Your task to perform on an android device: Search for dell xps on newegg.com, select the first entry, and add it to the cart. Image 0: 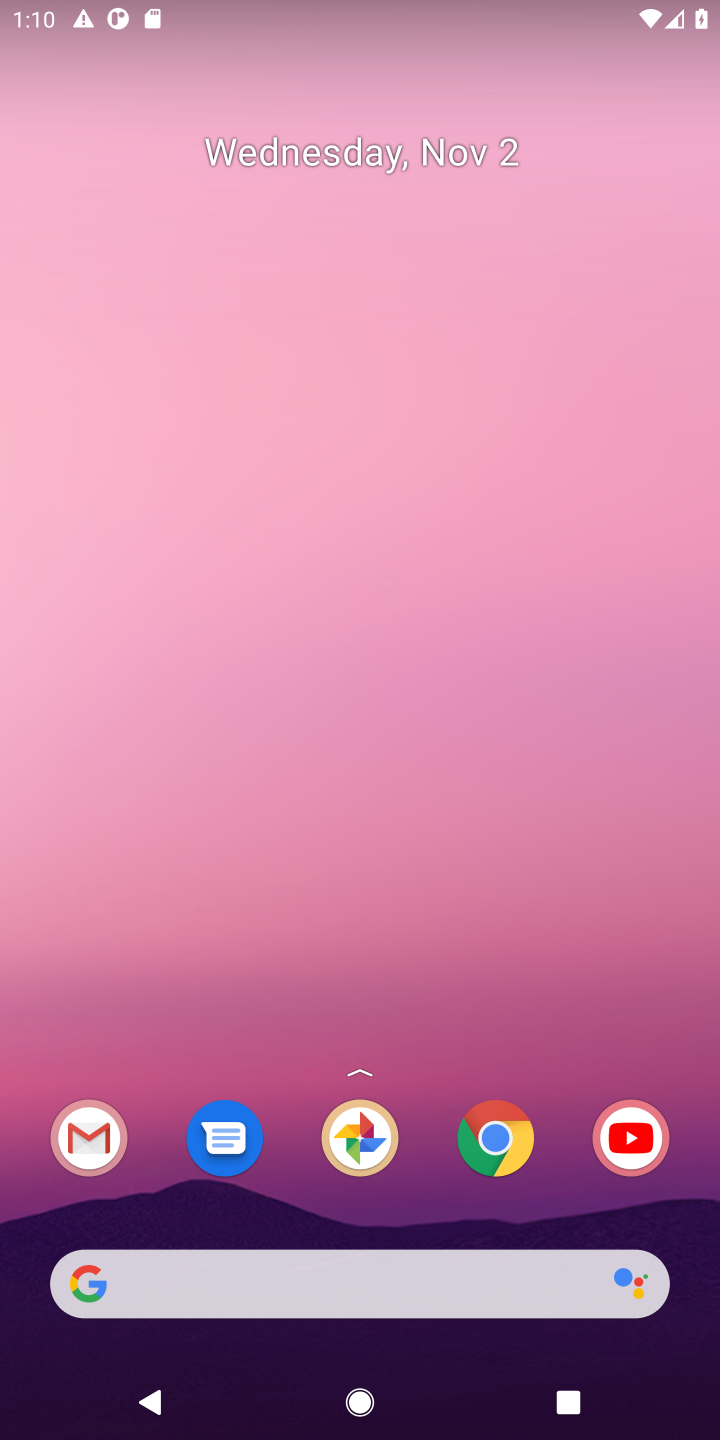
Step 0: click (495, 1107)
Your task to perform on an android device: Search for dell xps on newegg.com, select the first entry, and add it to the cart. Image 1: 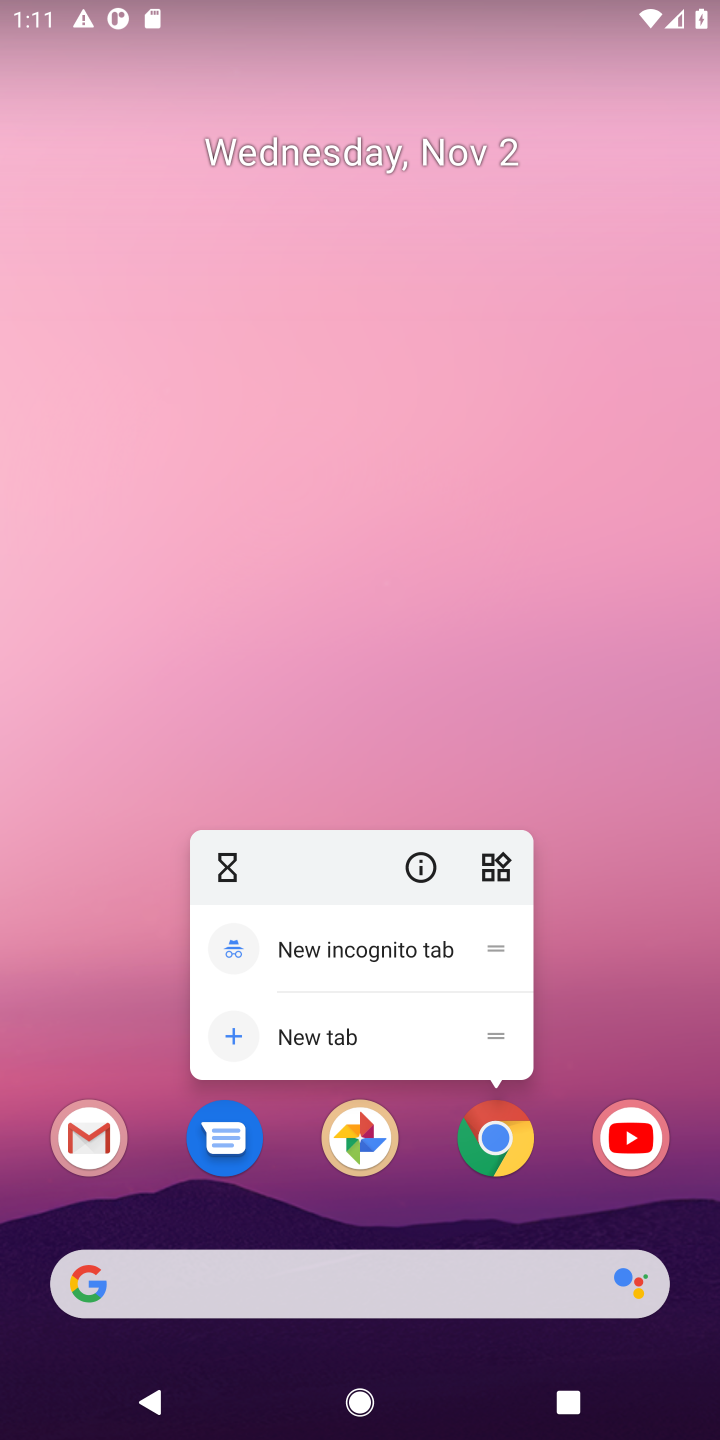
Step 1: click (485, 1136)
Your task to perform on an android device: Search for dell xps on newegg.com, select the first entry, and add it to the cart. Image 2: 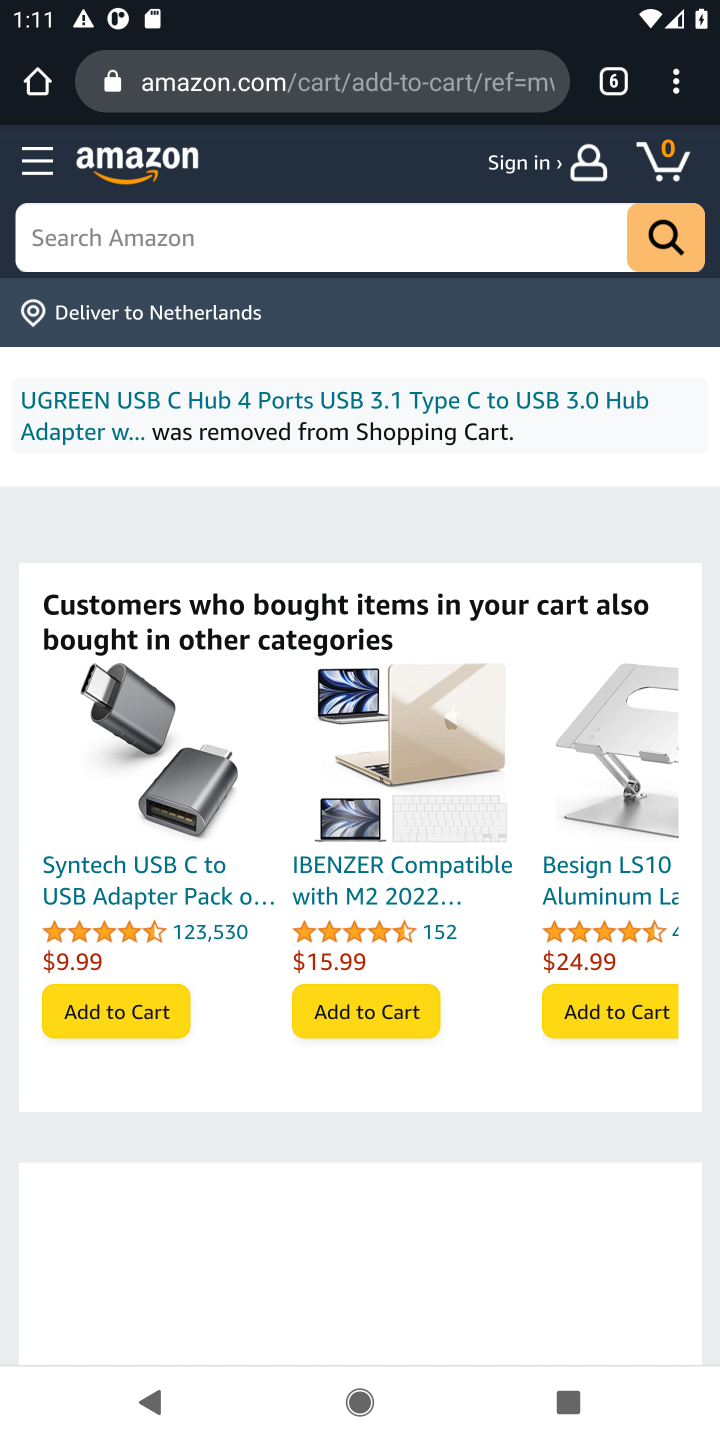
Step 2: click (611, 77)
Your task to perform on an android device: Search for dell xps on newegg.com, select the first entry, and add it to the cart. Image 3: 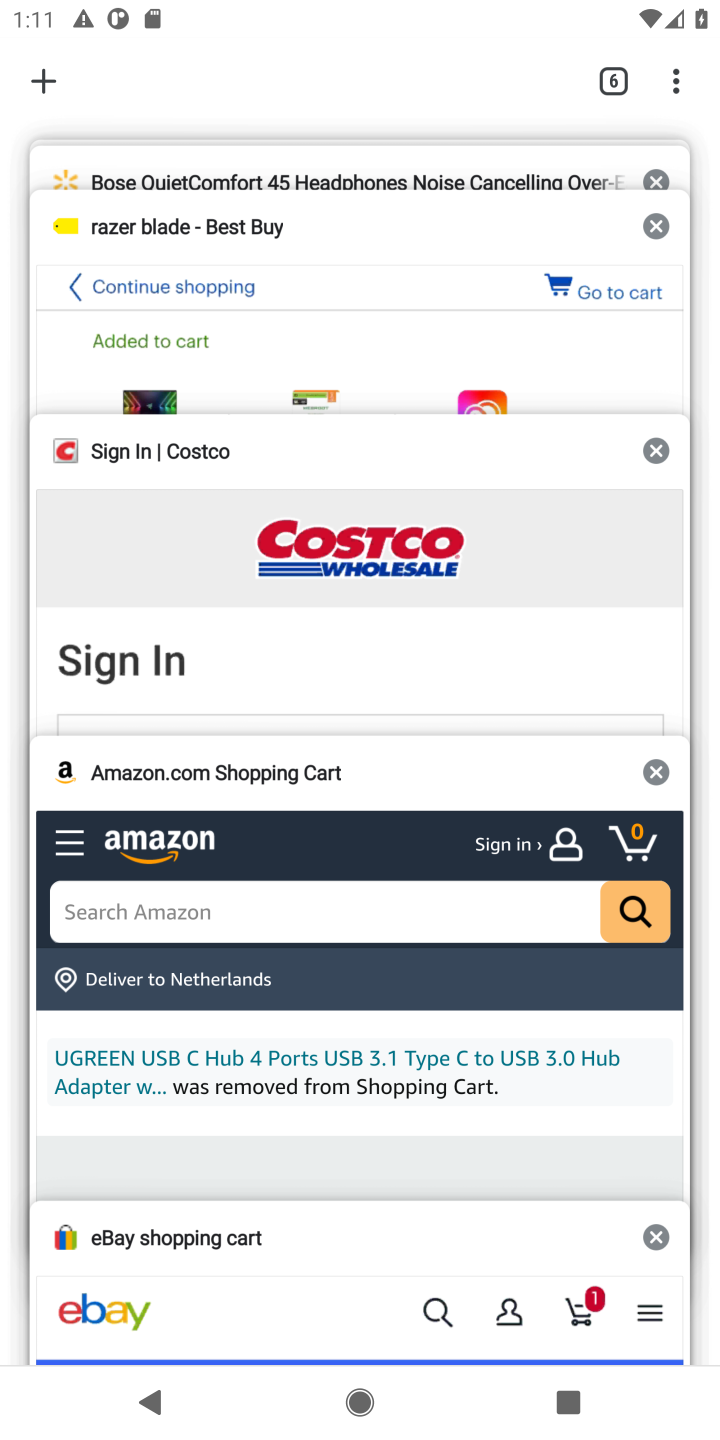
Step 3: click (41, 83)
Your task to perform on an android device: Search for dell xps on newegg.com, select the first entry, and add it to the cart. Image 4: 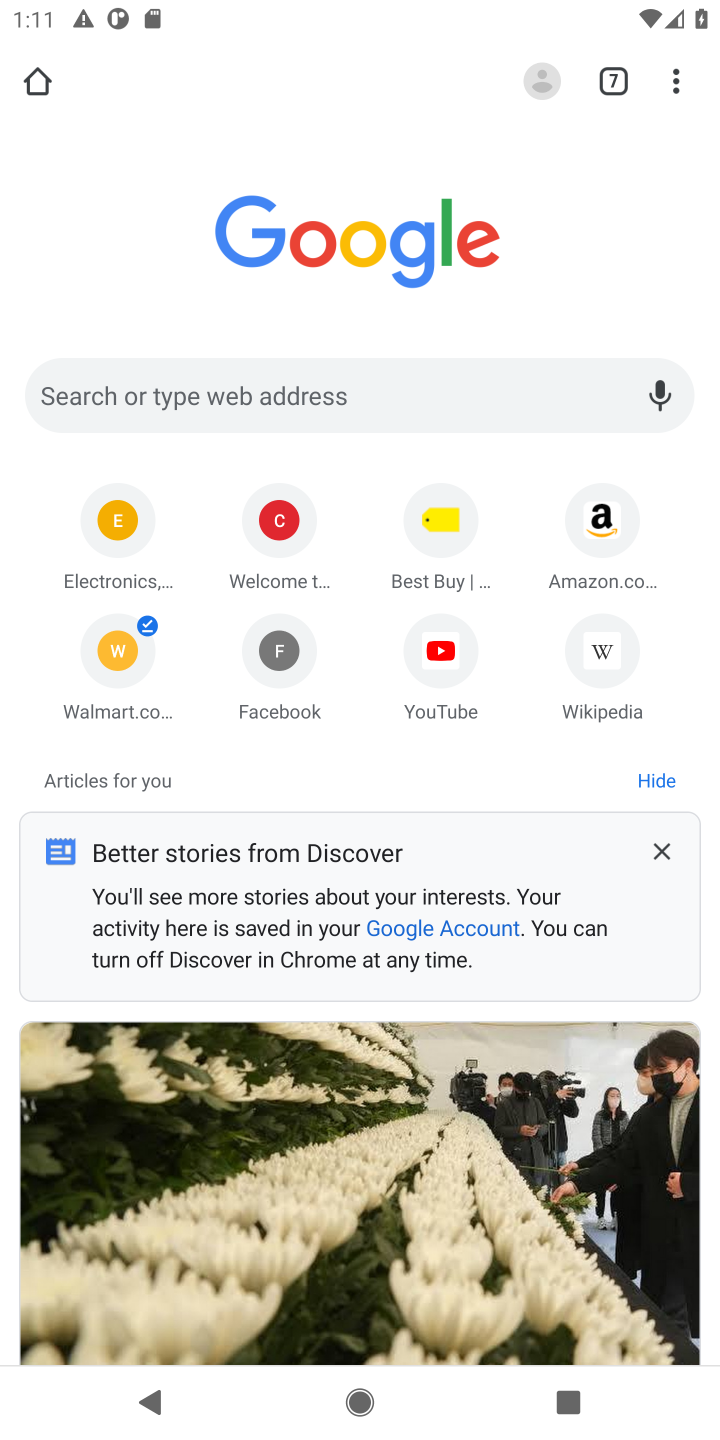
Step 4: click (362, 390)
Your task to perform on an android device: Search for dell xps on newegg.com, select the first entry, and add it to the cart. Image 5: 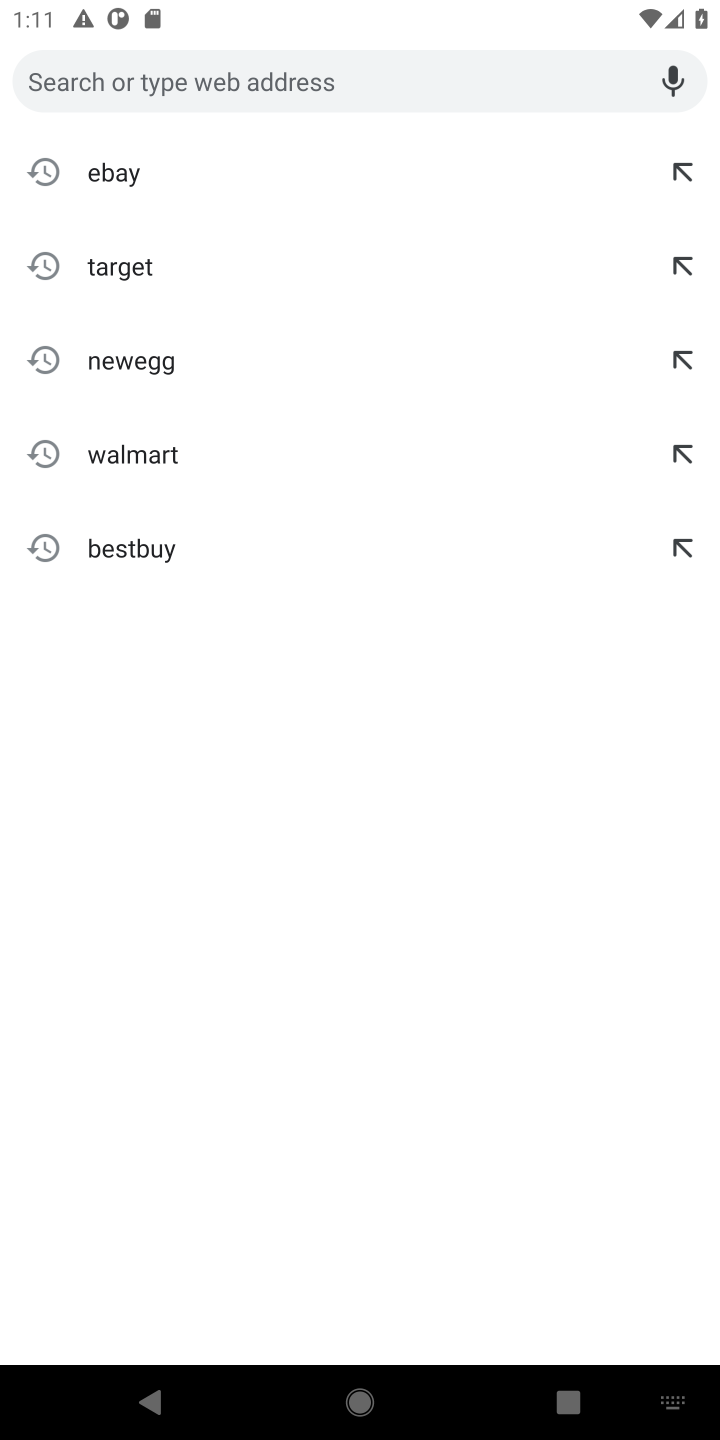
Step 5: click (127, 369)
Your task to perform on an android device: Search for dell xps on newegg.com, select the first entry, and add it to the cart. Image 6: 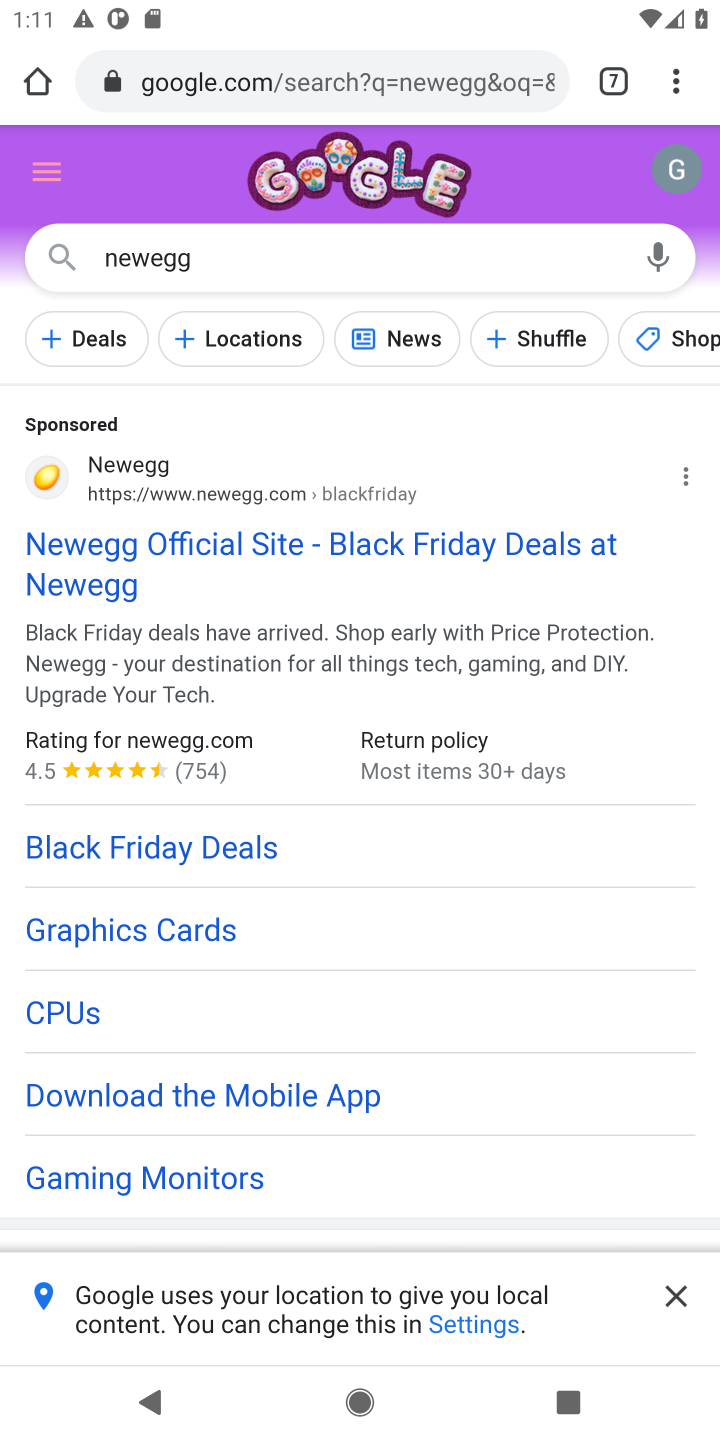
Step 6: drag from (348, 1135) to (388, 536)
Your task to perform on an android device: Search for dell xps on newegg.com, select the first entry, and add it to the cart. Image 7: 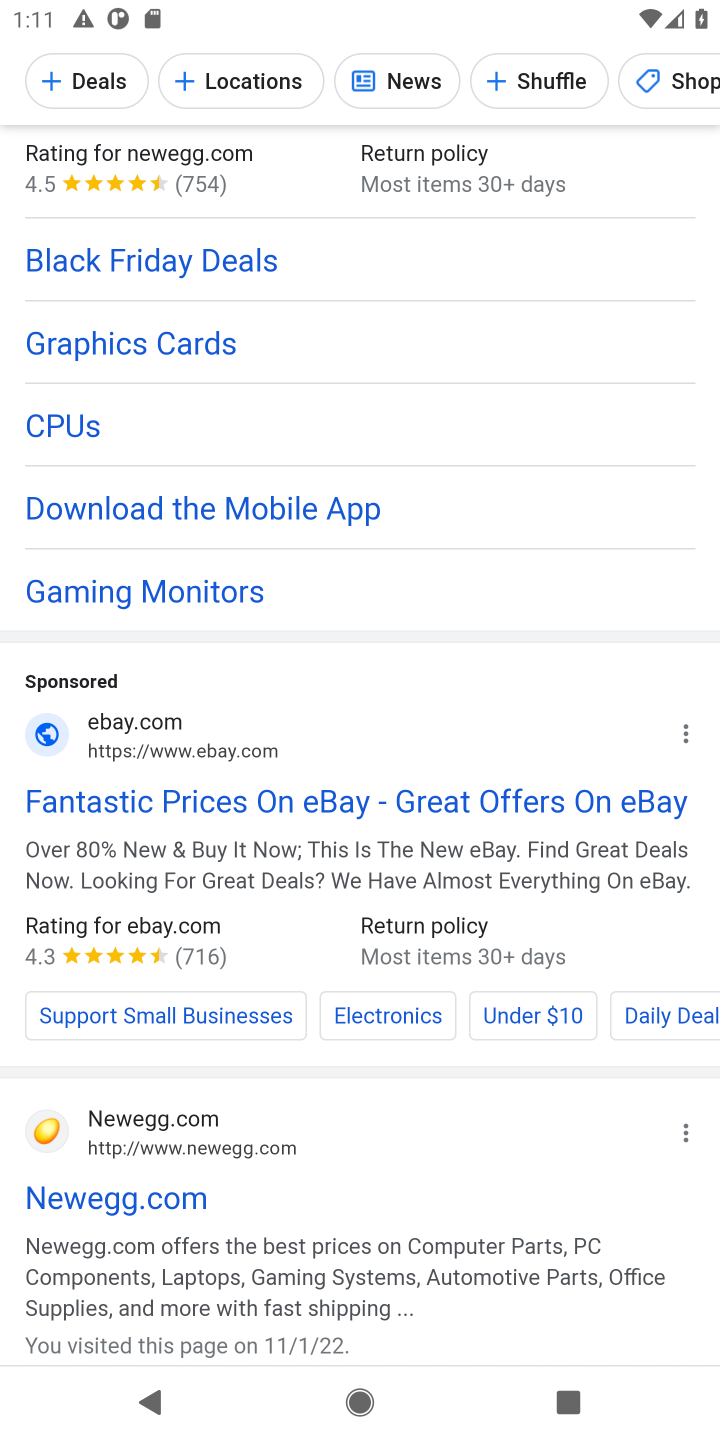
Step 7: drag from (247, 1154) to (367, 392)
Your task to perform on an android device: Search for dell xps on newegg.com, select the first entry, and add it to the cart. Image 8: 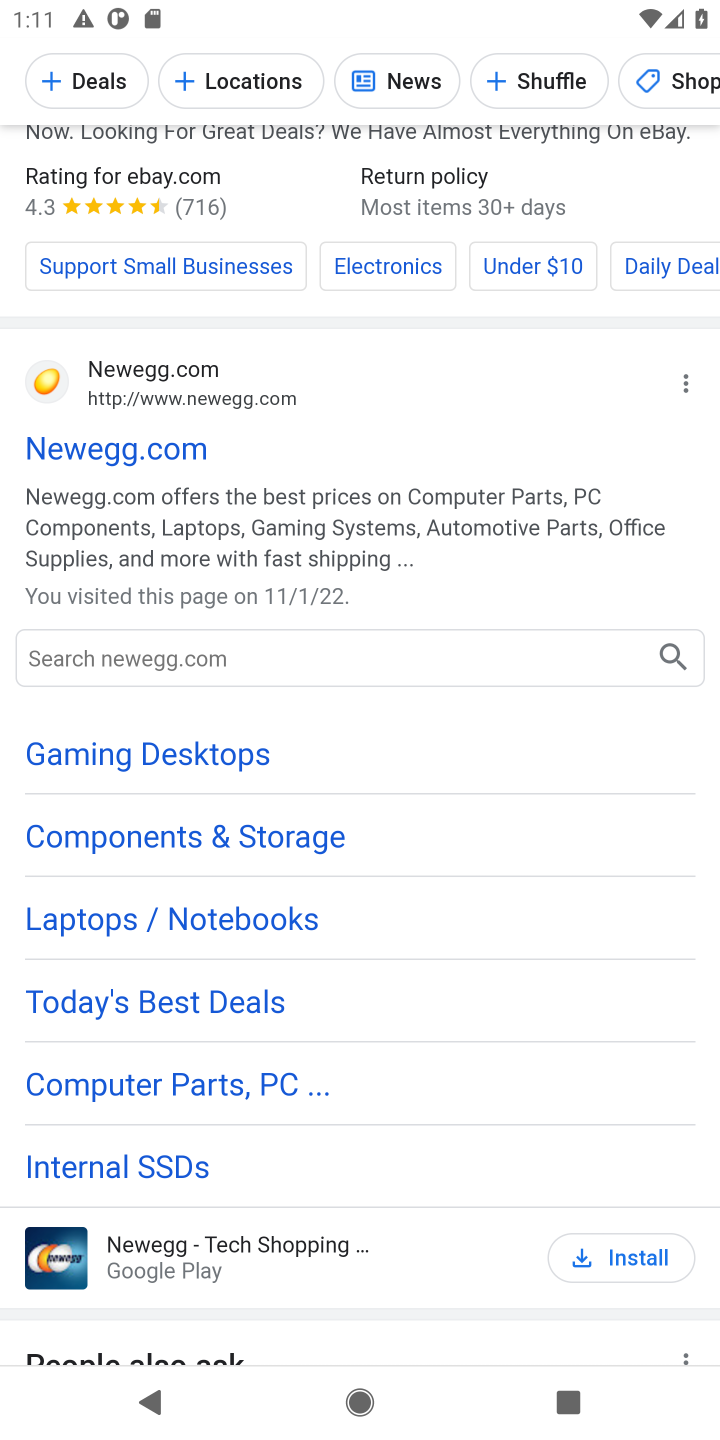
Step 8: click (199, 653)
Your task to perform on an android device: Search for dell xps on newegg.com, select the first entry, and add it to the cart. Image 9: 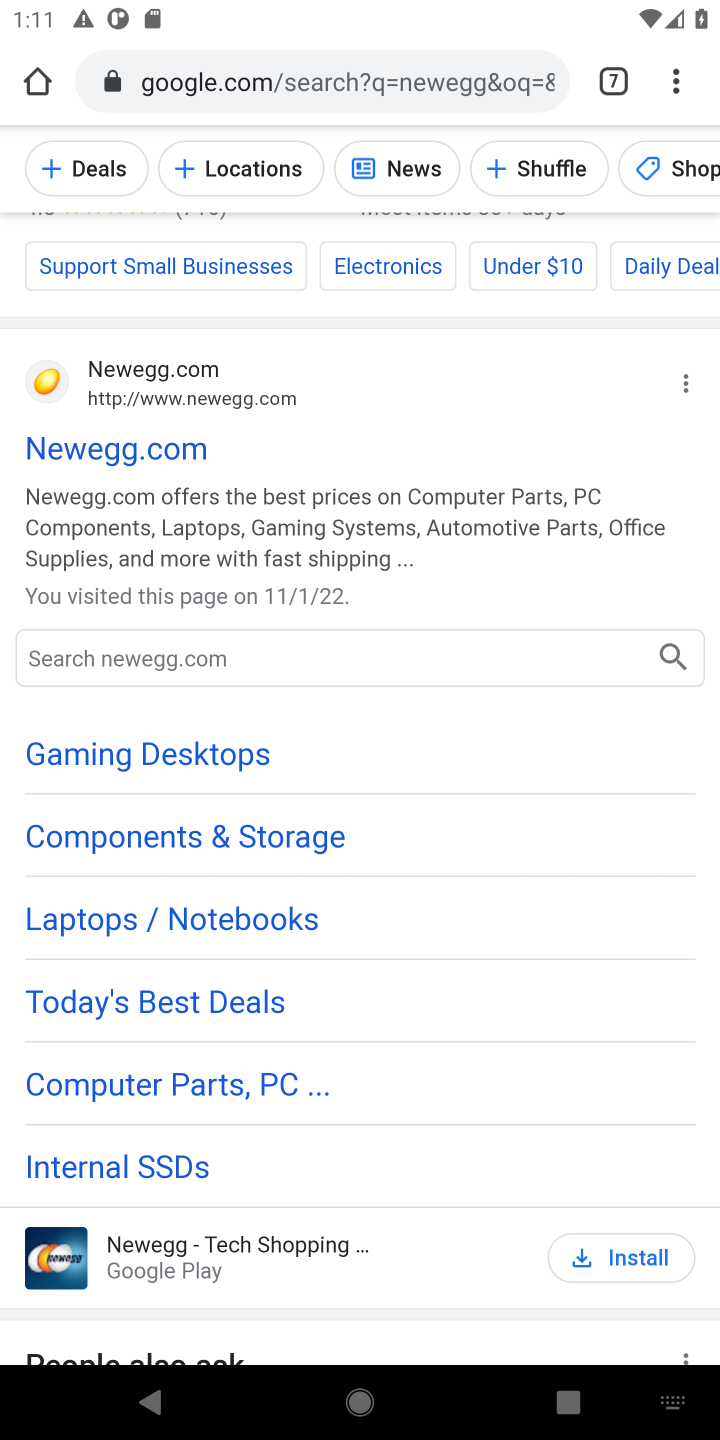
Step 9: type "dell xps"
Your task to perform on an android device: Search for dell xps on newegg.com, select the first entry, and add it to the cart. Image 10: 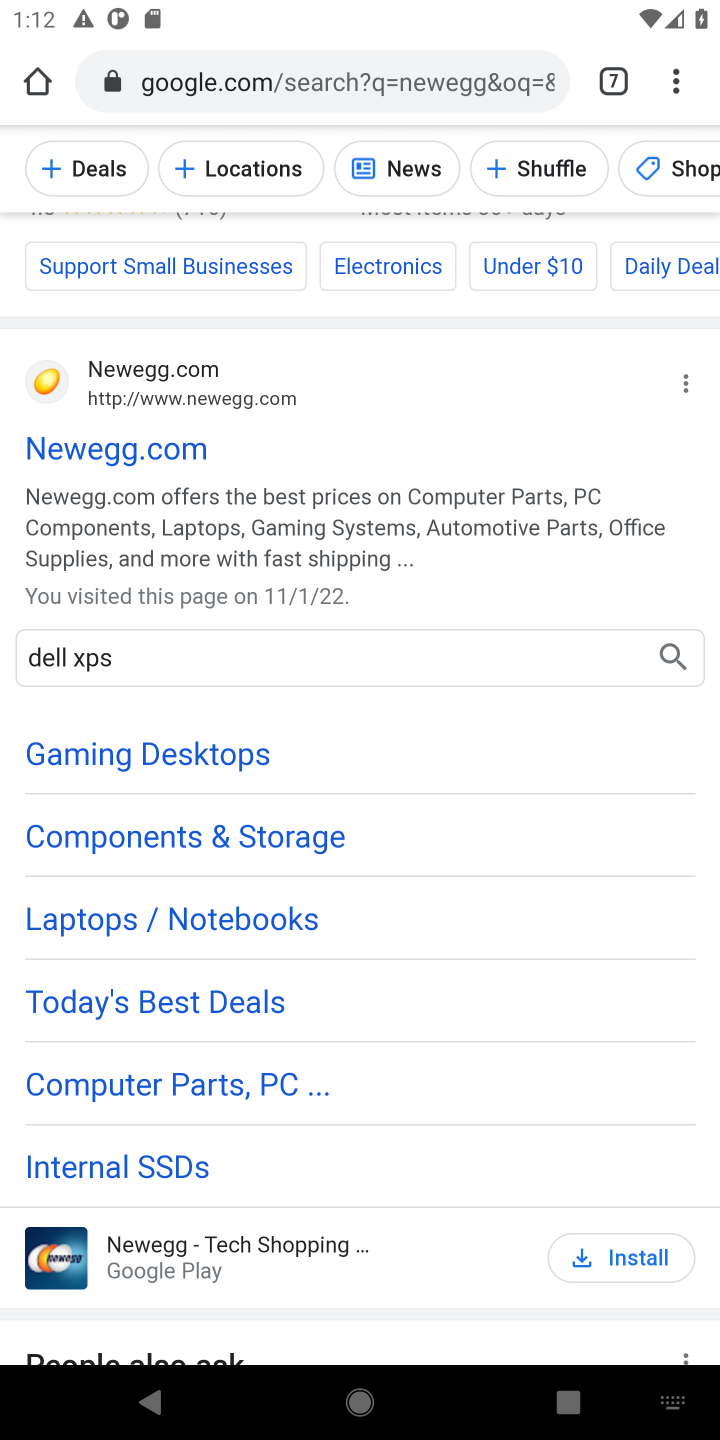
Step 10: click (671, 657)
Your task to perform on an android device: Search for dell xps on newegg.com, select the first entry, and add it to the cart. Image 11: 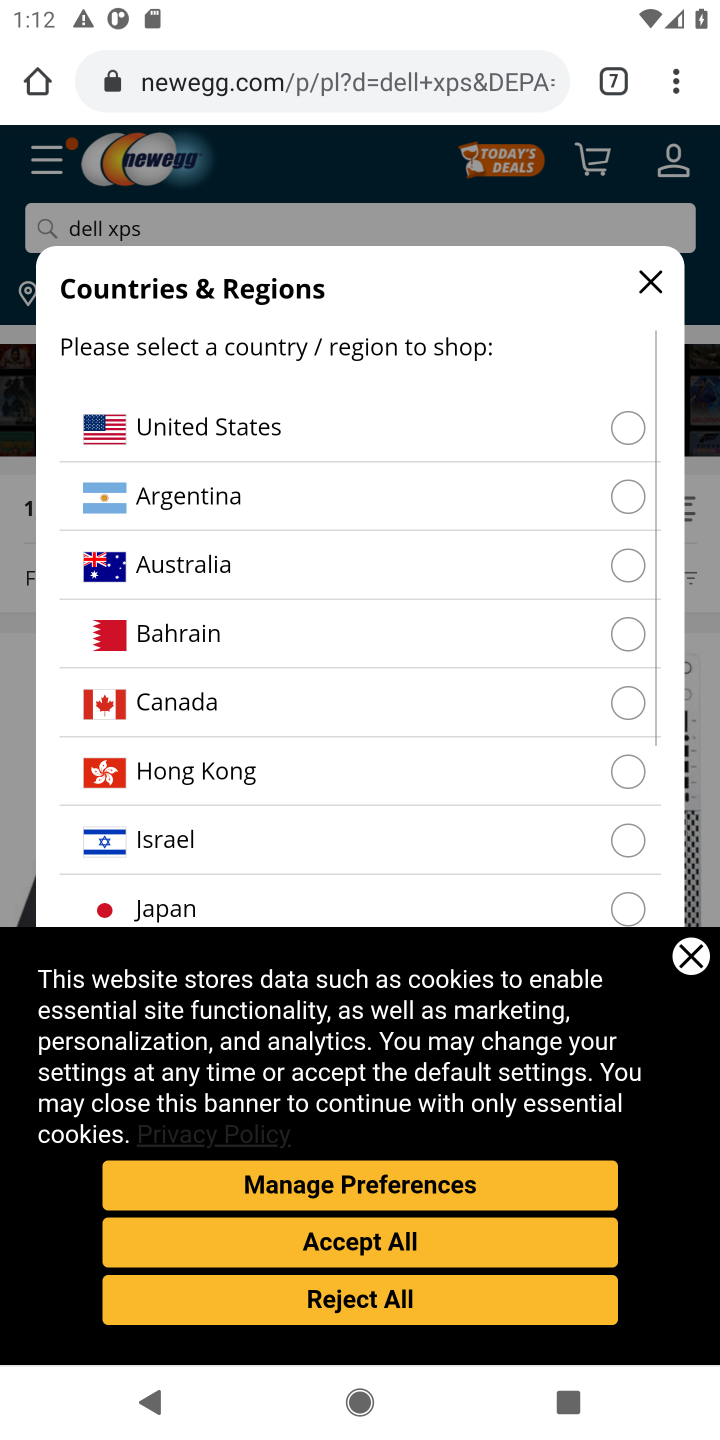
Step 11: click (634, 432)
Your task to perform on an android device: Search for dell xps on newegg.com, select the first entry, and add it to the cart. Image 12: 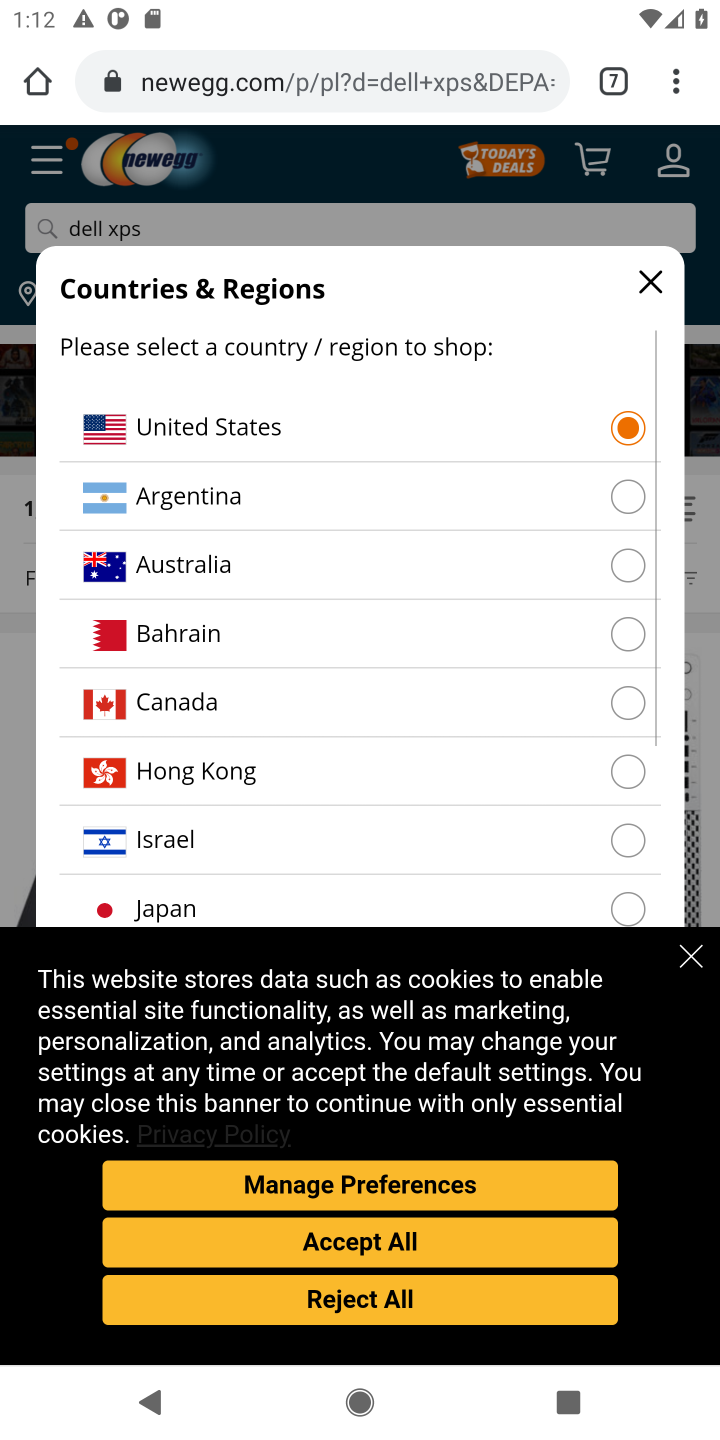
Step 12: click (695, 953)
Your task to perform on an android device: Search for dell xps on newegg.com, select the first entry, and add it to the cart. Image 13: 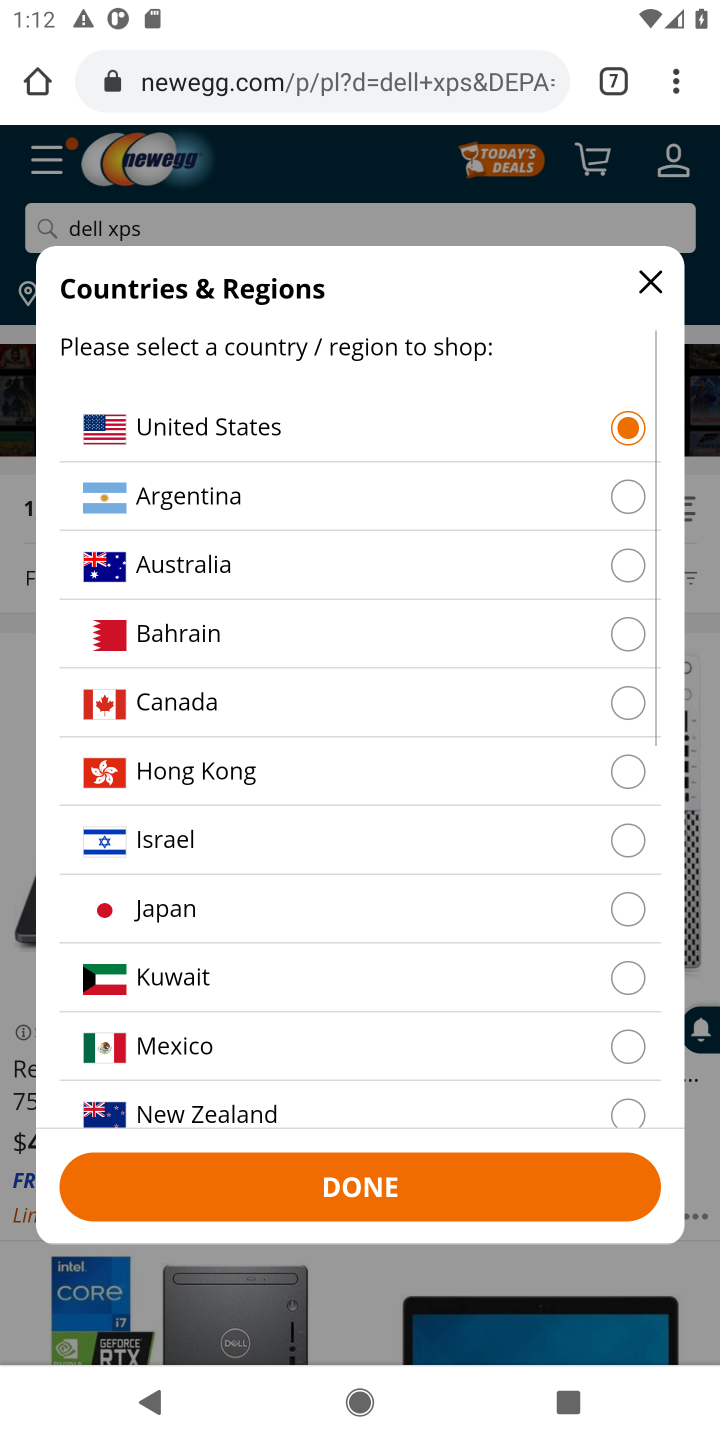
Step 13: click (369, 1200)
Your task to perform on an android device: Search for dell xps on newegg.com, select the first entry, and add it to the cart. Image 14: 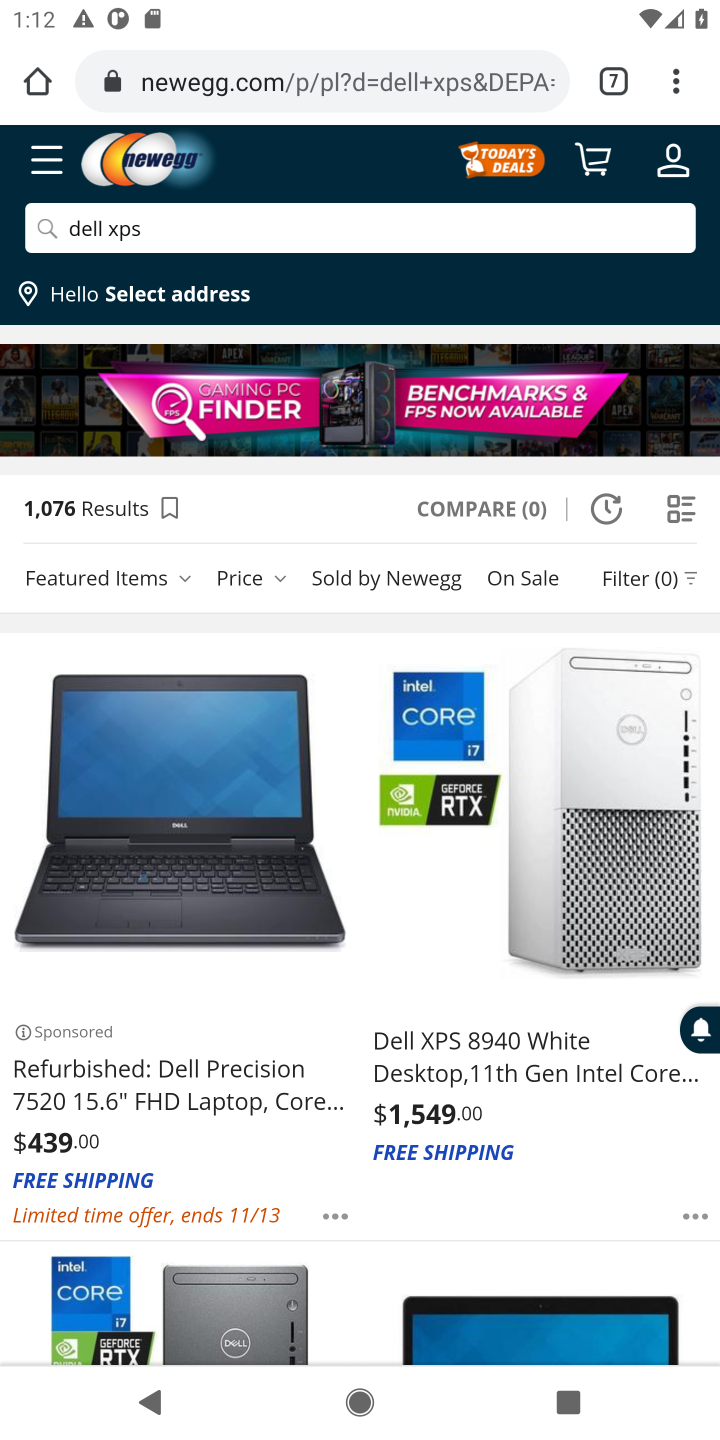
Step 14: click (151, 1081)
Your task to perform on an android device: Search for dell xps on newegg.com, select the first entry, and add it to the cart. Image 15: 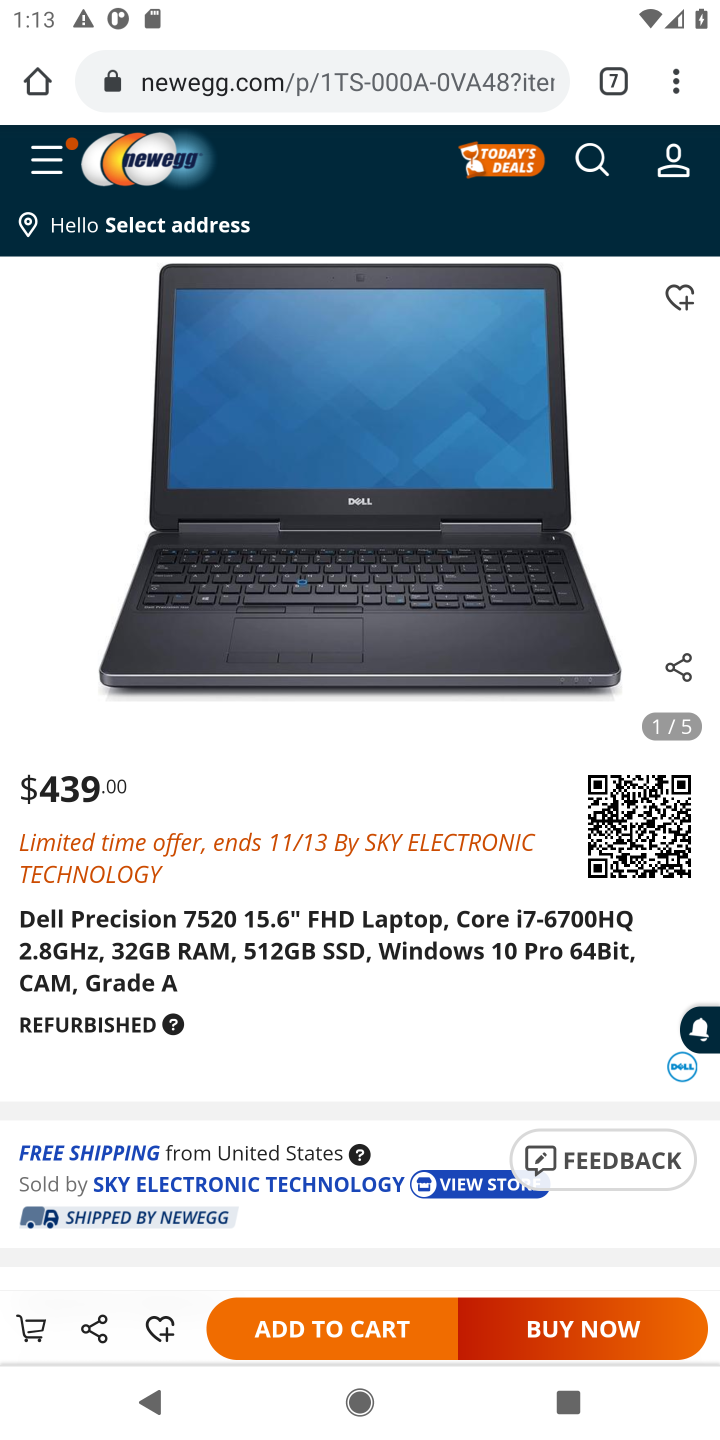
Step 15: click (307, 1330)
Your task to perform on an android device: Search for dell xps on newegg.com, select the first entry, and add it to the cart. Image 16: 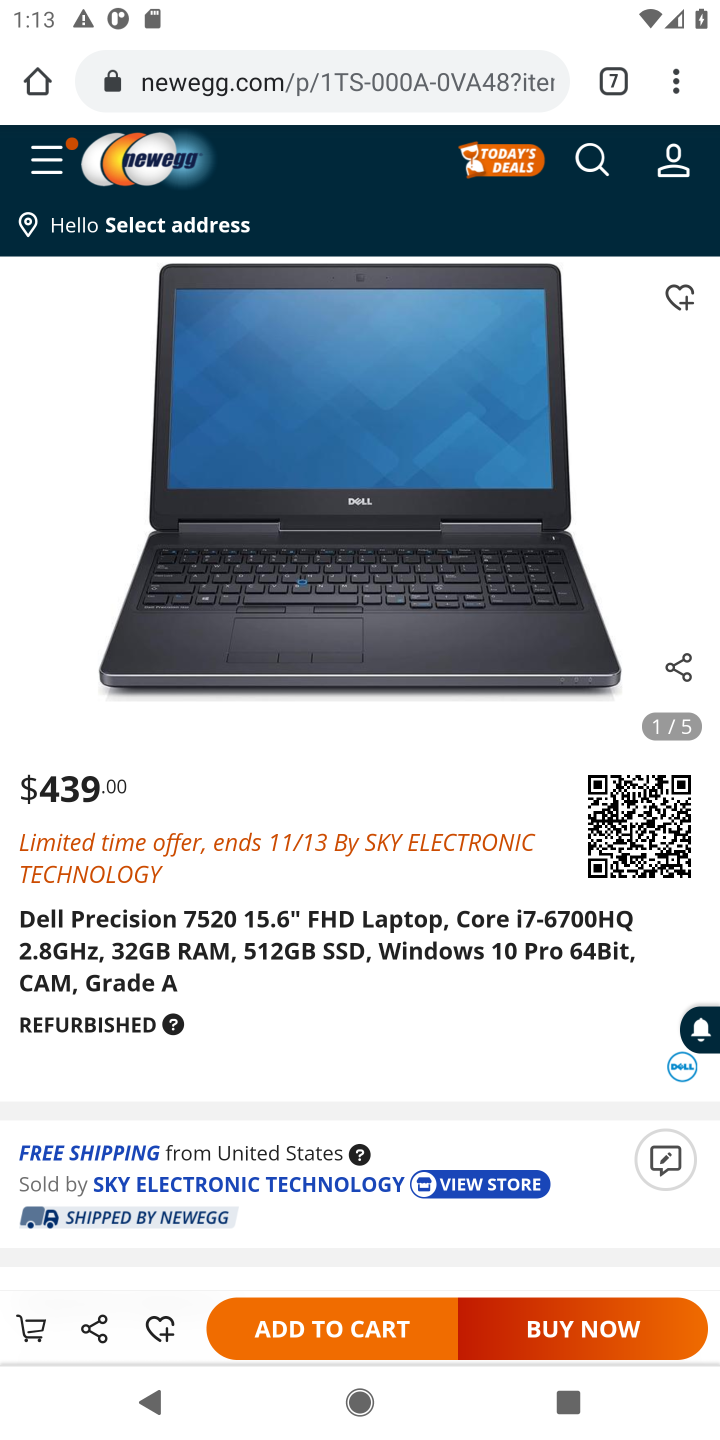
Step 16: click (307, 1322)
Your task to perform on an android device: Search for dell xps on newegg.com, select the first entry, and add it to the cart. Image 17: 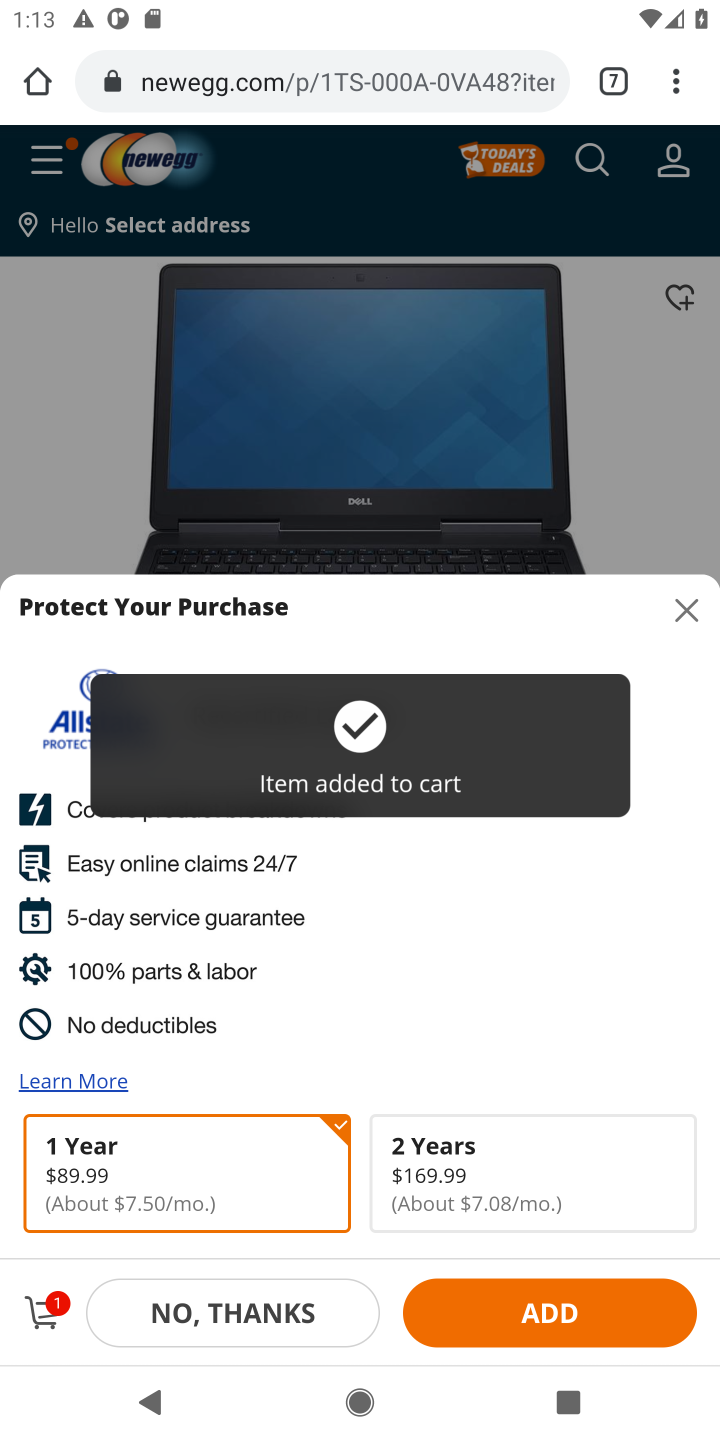
Step 17: task complete